Your task to perform on an android device: Search for sushi restaurants on Maps Image 0: 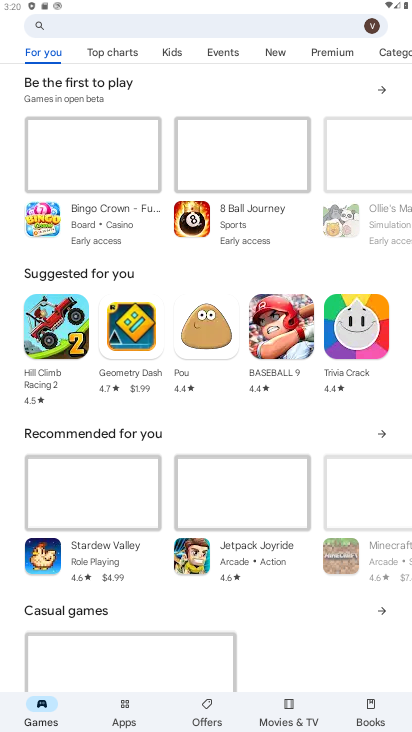
Step 0: press home button
Your task to perform on an android device: Search for sushi restaurants on Maps Image 1: 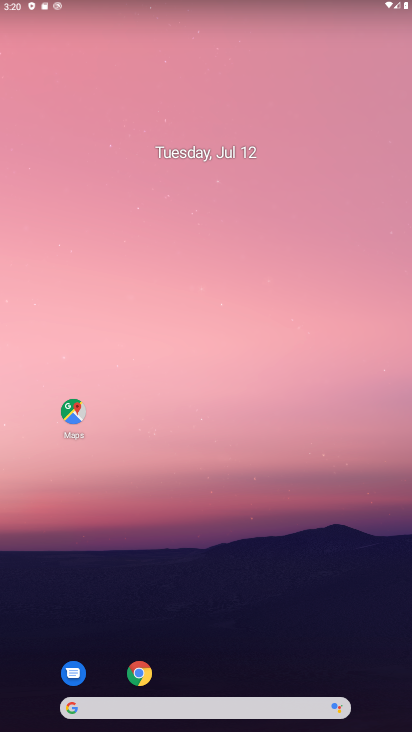
Step 1: click (73, 415)
Your task to perform on an android device: Search for sushi restaurants on Maps Image 2: 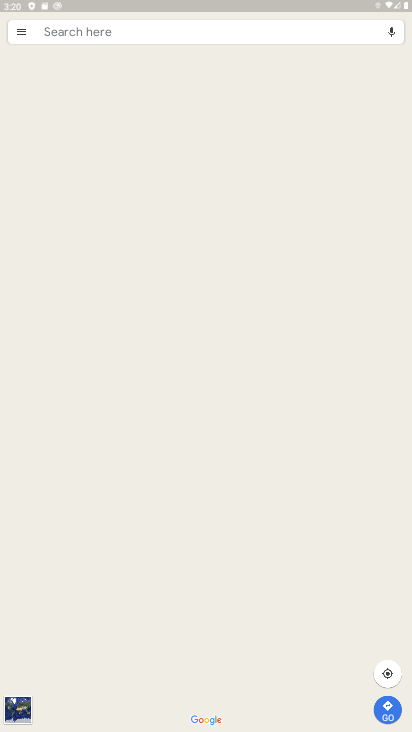
Step 2: click (165, 33)
Your task to perform on an android device: Search for sushi restaurants on Maps Image 3: 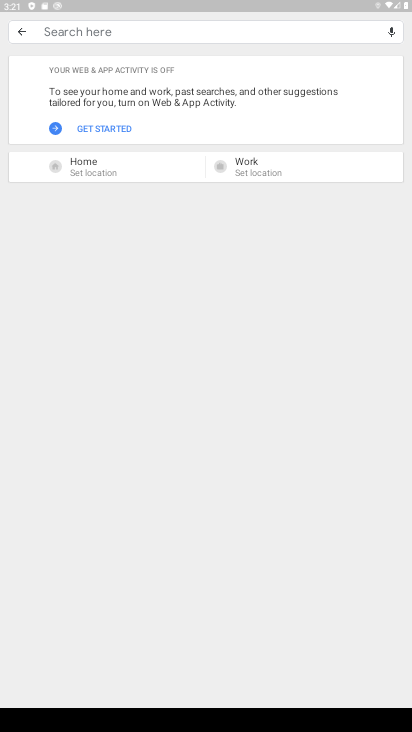
Step 3: type "sushi restaurants"
Your task to perform on an android device: Search for sushi restaurants on Maps Image 4: 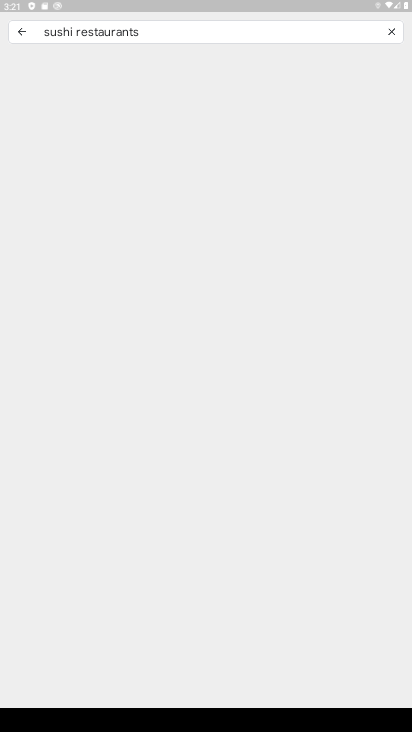
Step 4: click (158, 25)
Your task to perform on an android device: Search for sushi restaurants on Maps Image 5: 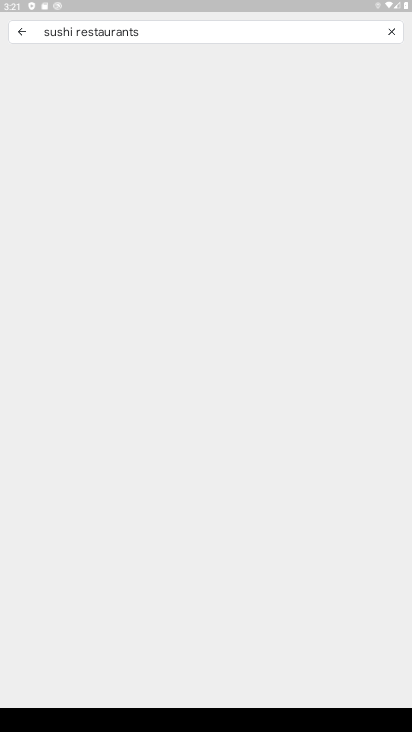
Step 5: press home button
Your task to perform on an android device: Search for sushi restaurants on Maps Image 6: 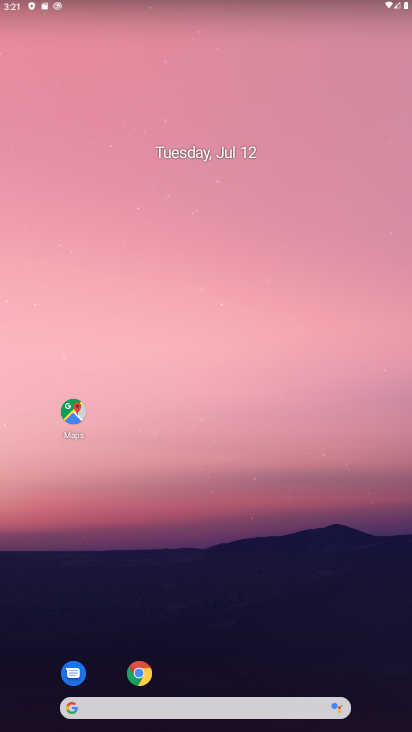
Step 6: click (73, 415)
Your task to perform on an android device: Search for sushi restaurants on Maps Image 7: 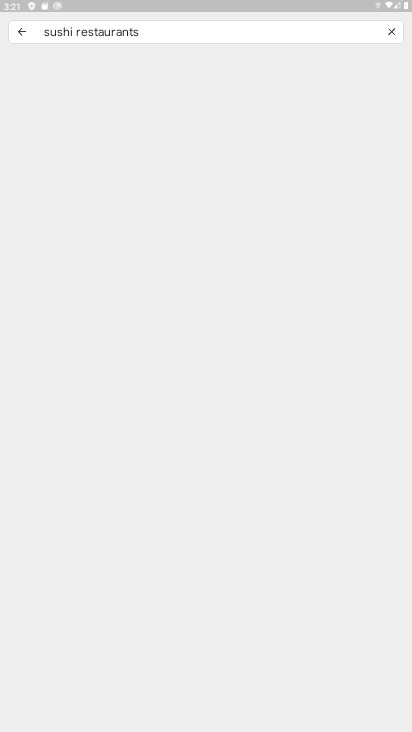
Step 7: click (391, 33)
Your task to perform on an android device: Search for sushi restaurants on Maps Image 8: 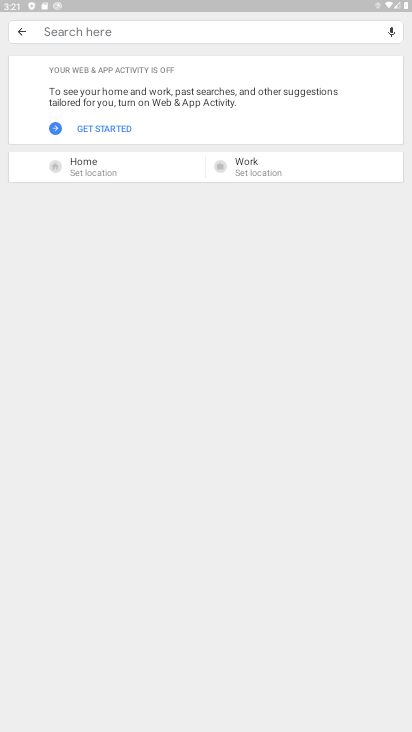
Step 8: click (114, 128)
Your task to perform on an android device: Search for sushi restaurants on Maps Image 9: 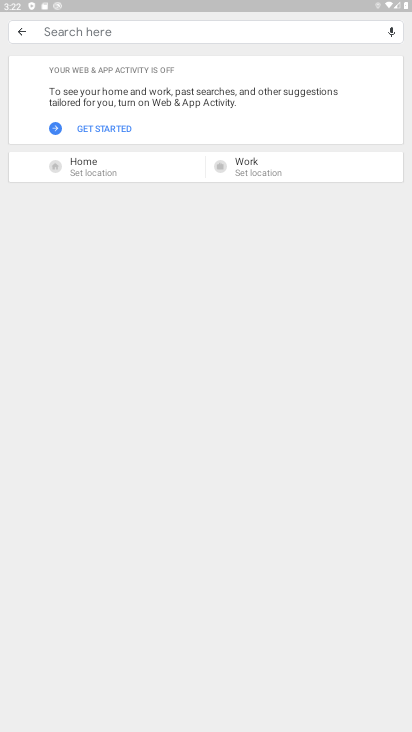
Step 9: click (180, 26)
Your task to perform on an android device: Search for sushi restaurants on Maps Image 10: 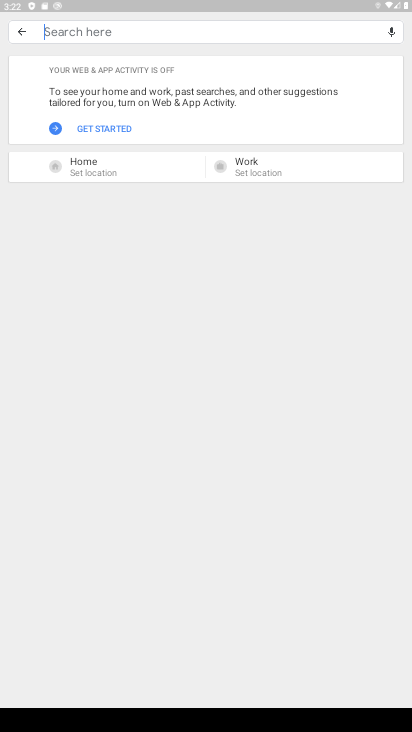
Step 10: press home button
Your task to perform on an android device: Search for sushi restaurants on Maps Image 11: 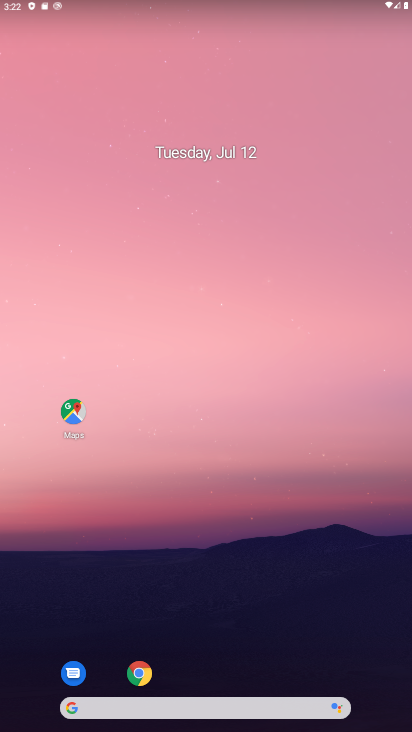
Step 11: click (69, 411)
Your task to perform on an android device: Search for sushi restaurants on Maps Image 12: 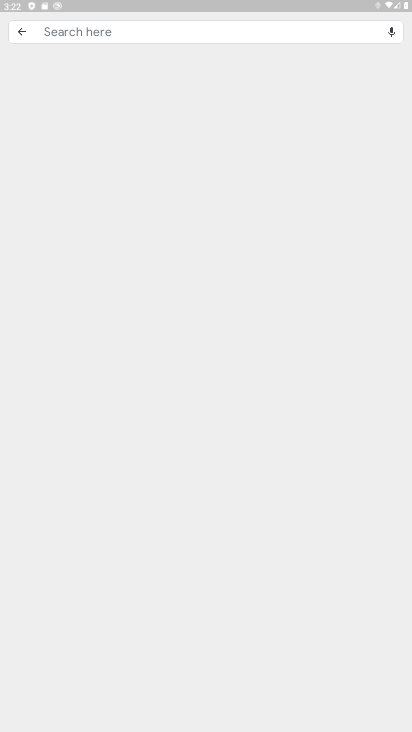
Step 12: click (196, 34)
Your task to perform on an android device: Search for sushi restaurants on Maps Image 13: 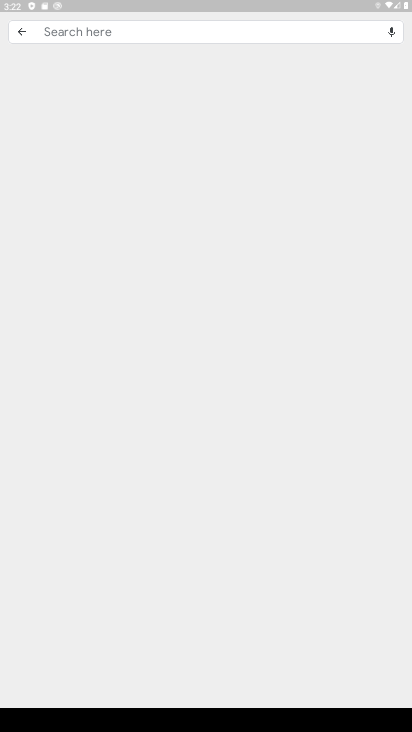
Step 13: task complete